Your task to perform on an android device: turn notification dots on Image 0: 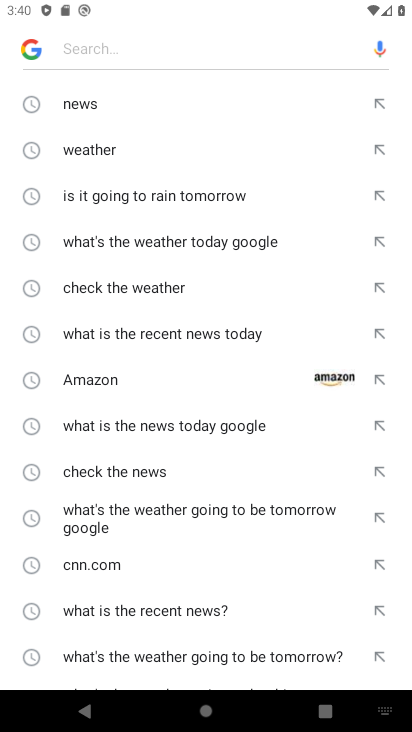
Step 0: press home button
Your task to perform on an android device: turn notification dots on Image 1: 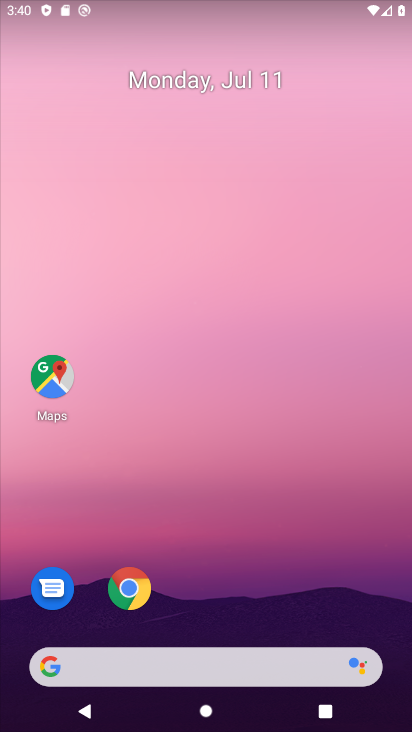
Step 1: drag from (247, 621) to (223, 63)
Your task to perform on an android device: turn notification dots on Image 2: 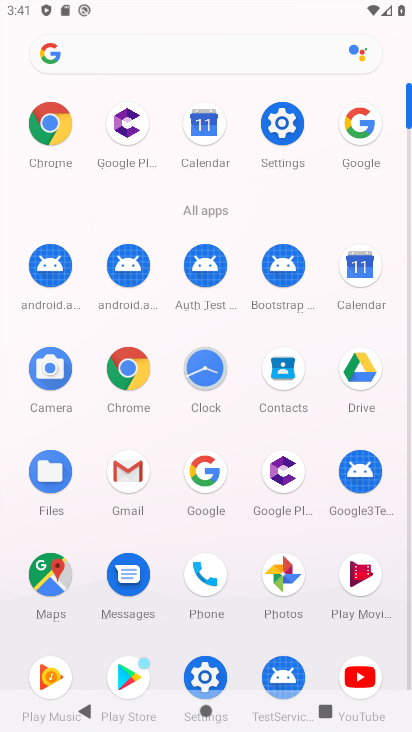
Step 2: click (282, 123)
Your task to perform on an android device: turn notification dots on Image 3: 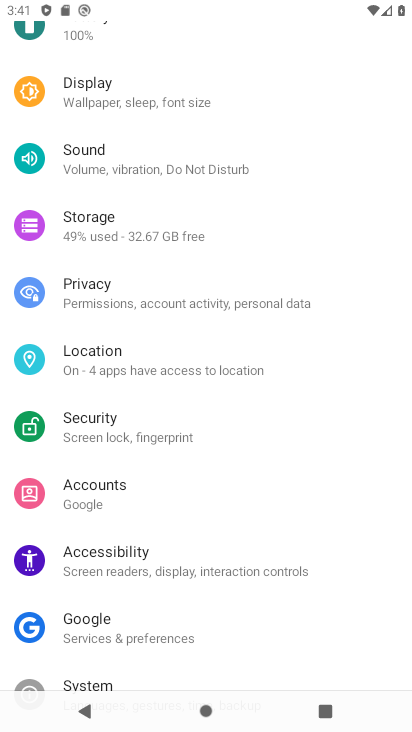
Step 3: drag from (145, 199) to (202, 361)
Your task to perform on an android device: turn notification dots on Image 4: 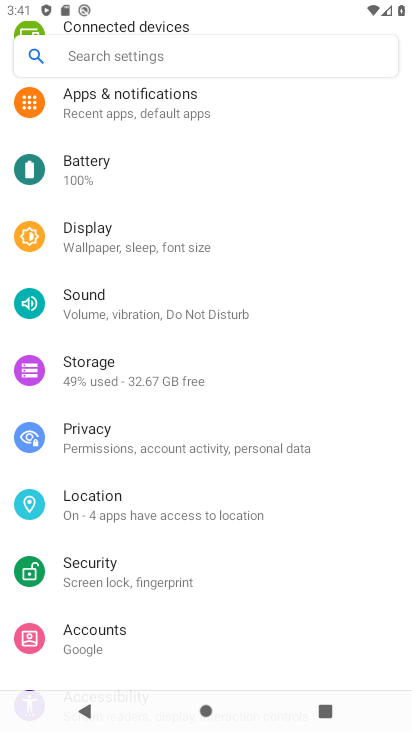
Step 4: drag from (146, 201) to (179, 337)
Your task to perform on an android device: turn notification dots on Image 5: 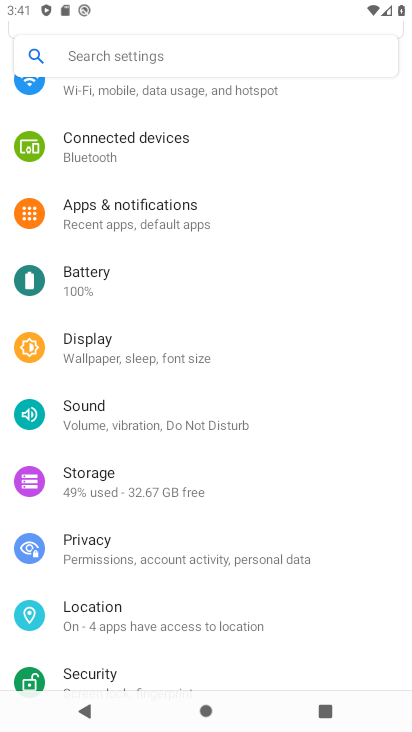
Step 5: click (134, 223)
Your task to perform on an android device: turn notification dots on Image 6: 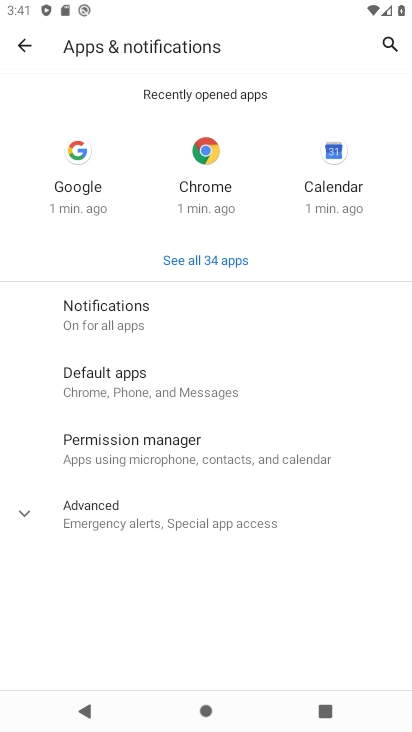
Step 6: click (130, 306)
Your task to perform on an android device: turn notification dots on Image 7: 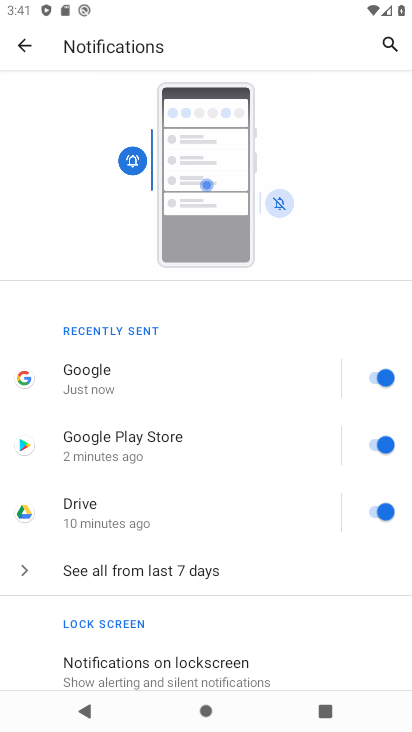
Step 7: drag from (135, 638) to (248, 494)
Your task to perform on an android device: turn notification dots on Image 8: 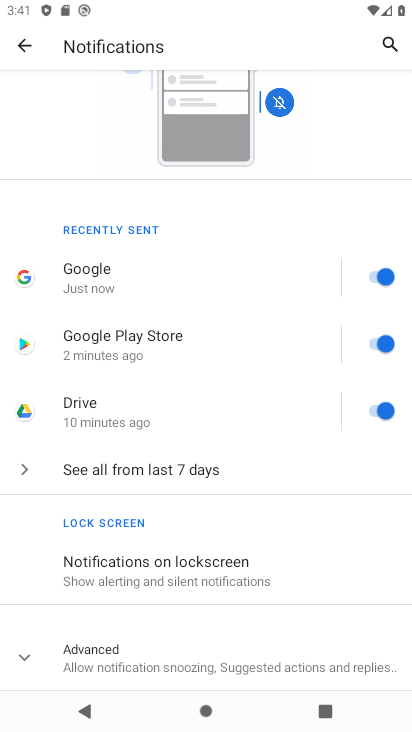
Step 8: drag from (171, 614) to (248, 526)
Your task to perform on an android device: turn notification dots on Image 9: 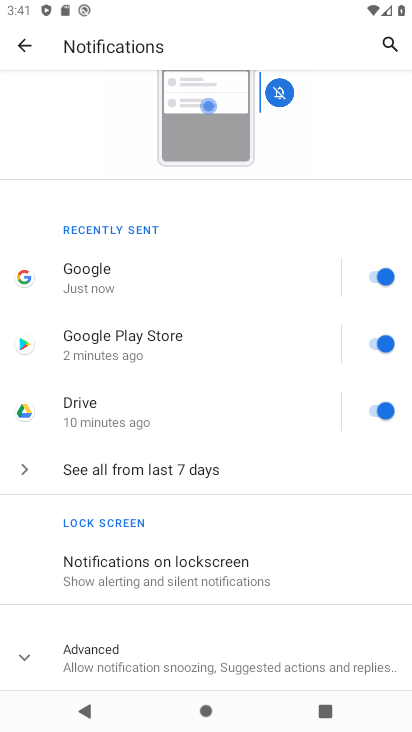
Step 9: click (94, 665)
Your task to perform on an android device: turn notification dots on Image 10: 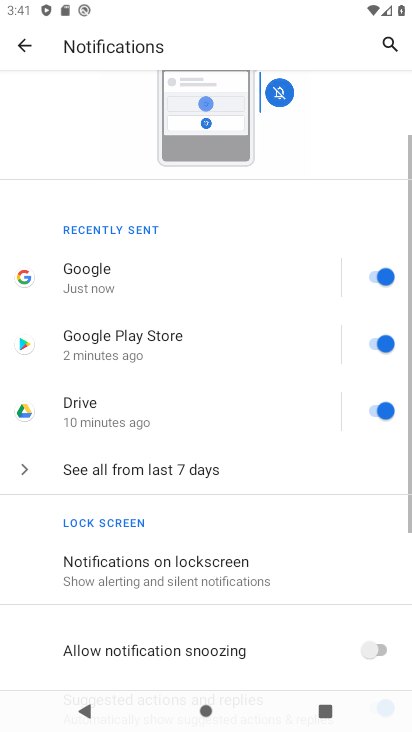
Step 10: task complete